Your task to perform on an android device: turn on translation in the chrome app Image 0: 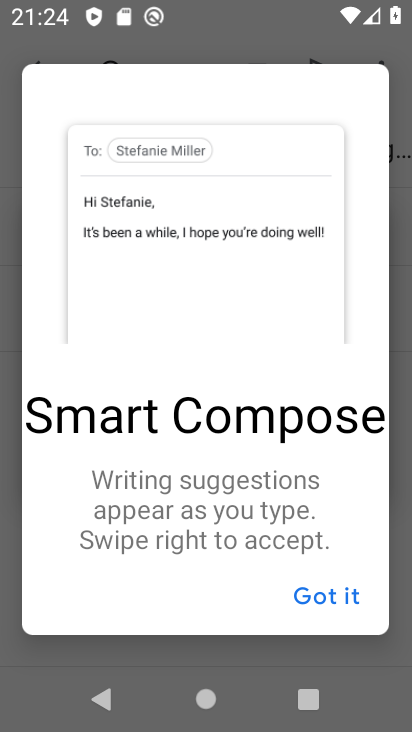
Step 0: press home button
Your task to perform on an android device: turn on translation in the chrome app Image 1: 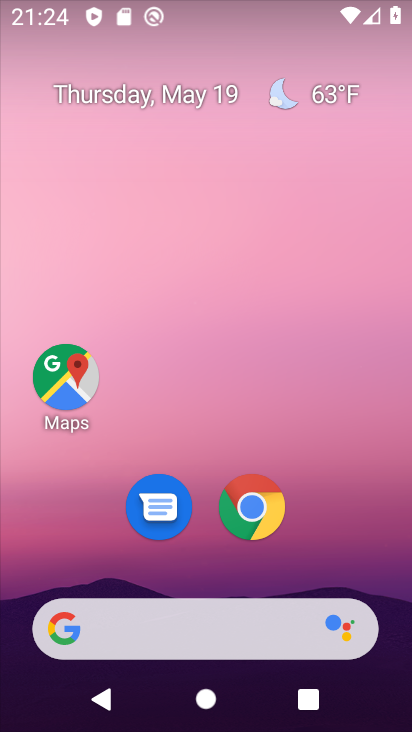
Step 1: drag from (387, 554) to (346, 27)
Your task to perform on an android device: turn on translation in the chrome app Image 2: 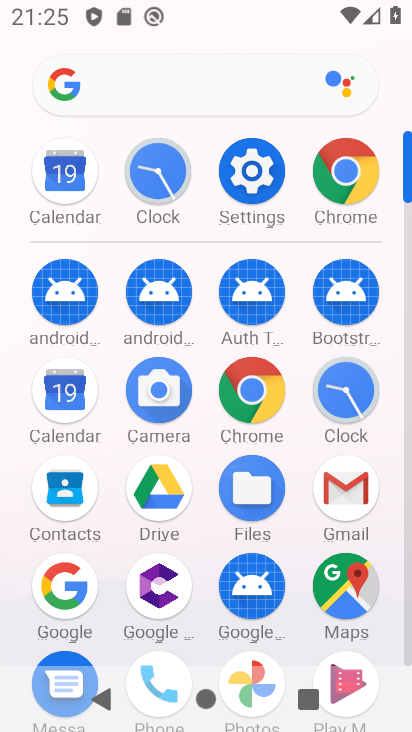
Step 2: click (357, 170)
Your task to perform on an android device: turn on translation in the chrome app Image 3: 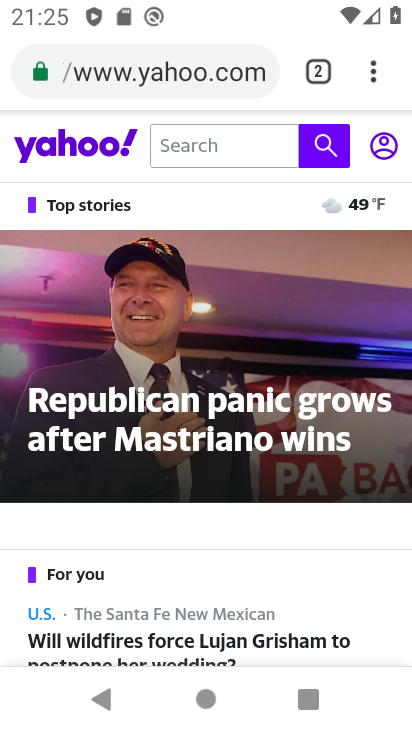
Step 3: click (377, 78)
Your task to perform on an android device: turn on translation in the chrome app Image 4: 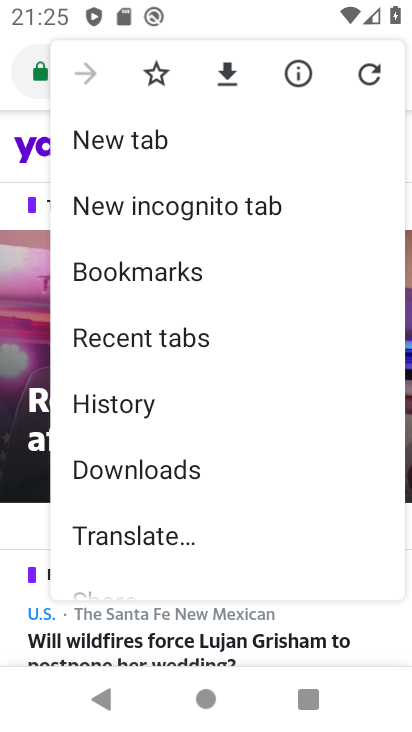
Step 4: drag from (292, 525) to (274, 111)
Your task to perform on an android device: turn on translation in the chrome app Image 5: 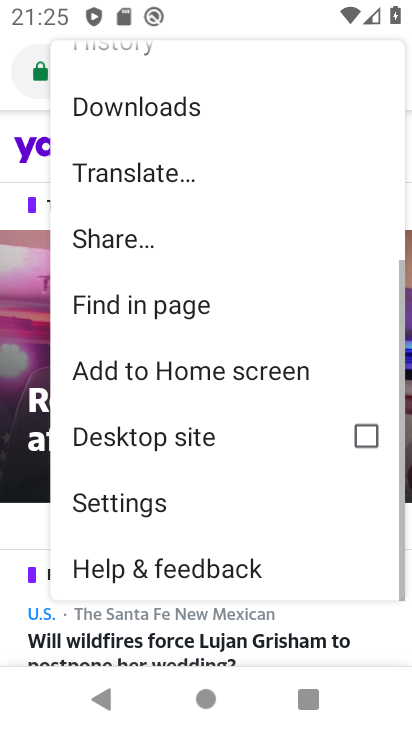
Step 5: click (245, 506)
Your task to perform on an android device: turn on translation in the chrome app Image 6: 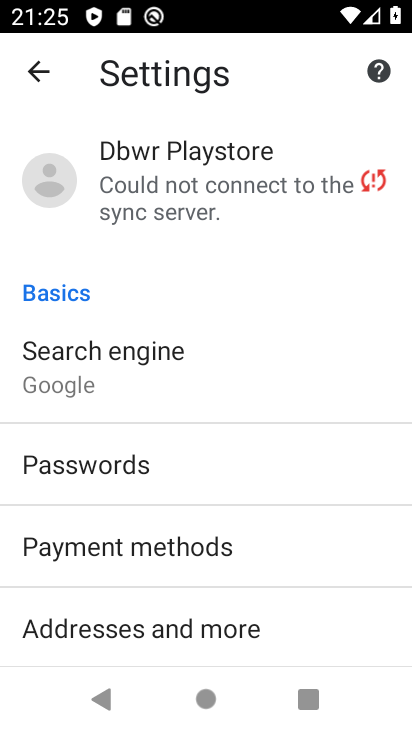
Step 6: drag from (304, 587) to (258, 272)
Your task to perform on an android device: turn on translation in the chrome app Image 7: 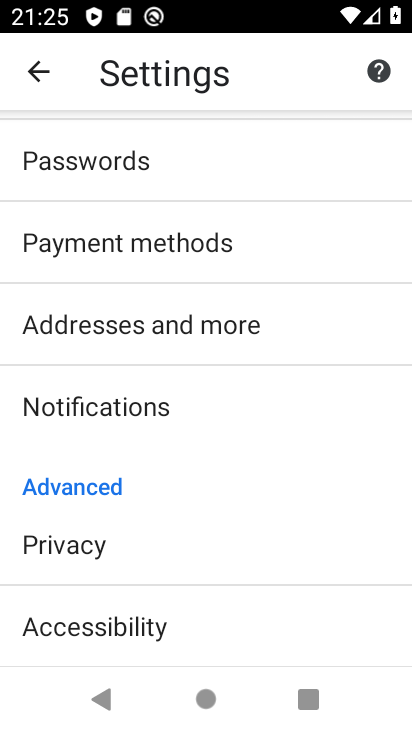
Step 7: drag from (279, 552) to (227, 155)
Your task to perform on an android device: turn on translation in the chrome app Image 8: 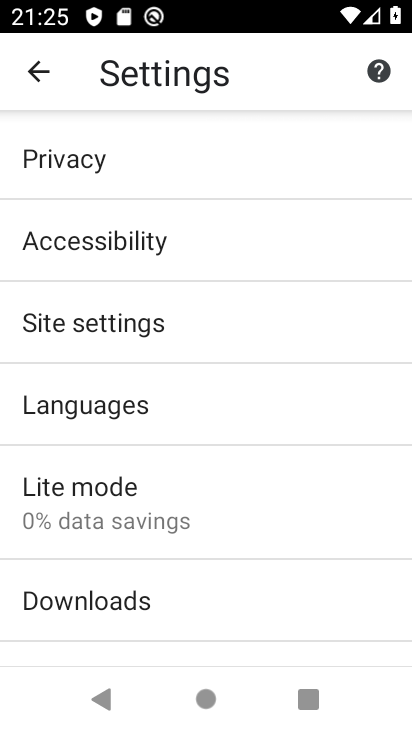
Step 8: click (219, 383)
Your task to perform on an android device: turn on translation in the chrome app Image 9: 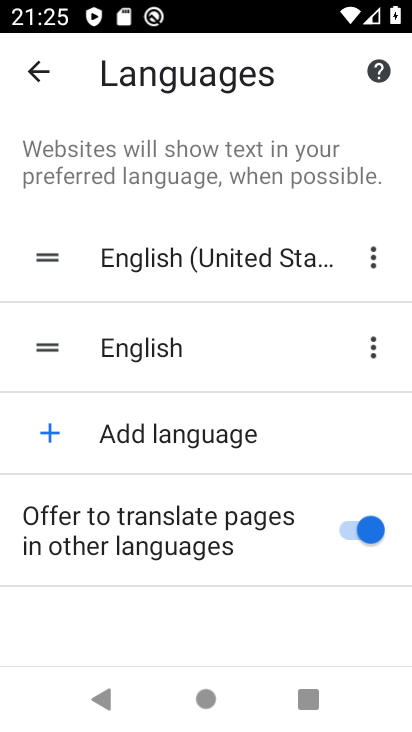
Step 9: task complete